Your task to perform on an android device: turn on location history Image 0: 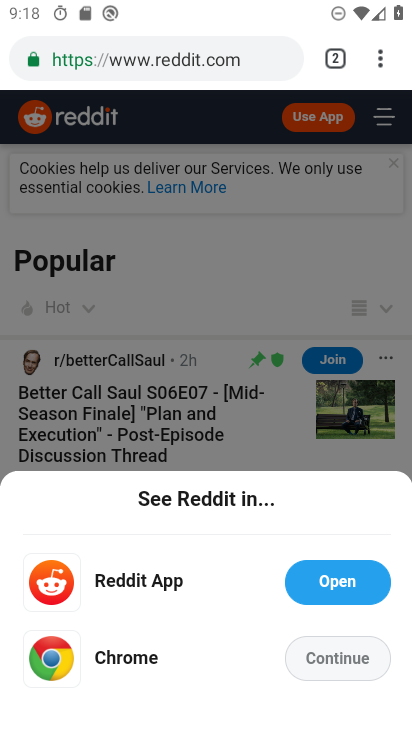
Step 0: press home button
Your task to perform on an android device: turn on location history Image 1: 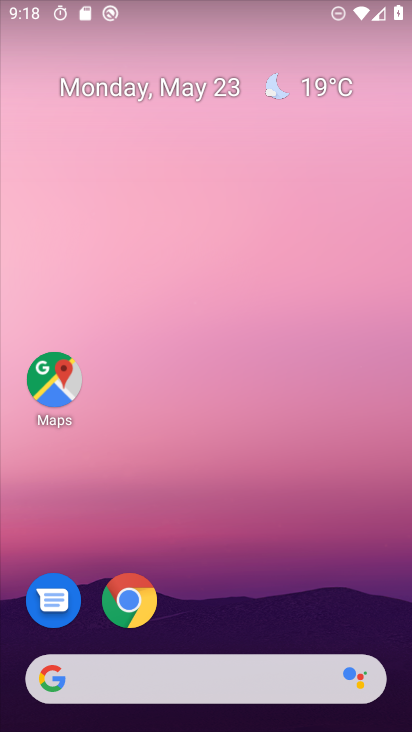
Step 1: drag from (1, 717) to (315, 78)
Your task to perform on an android device: turn on location history Image 2: 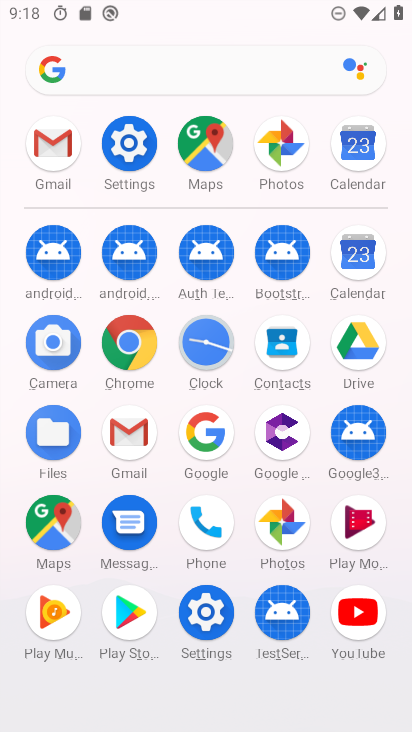
Step 2: click (127, 147)
Your task to perform on an android device: turn on location history Image 3: 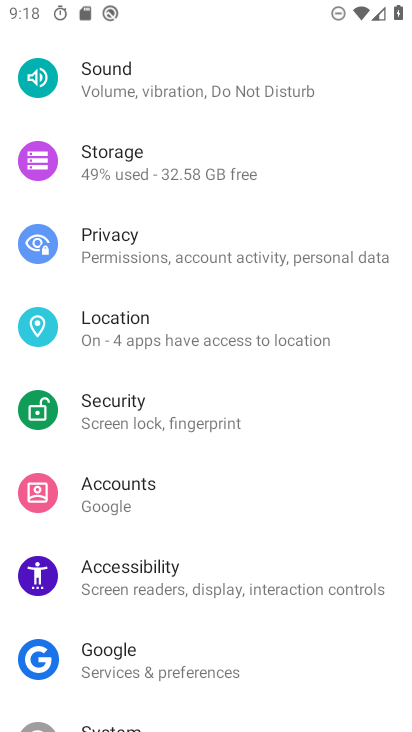
Step 3: drag from (141, 78) to (106, 531)
Your task to perform on an android device: turn on location history Image 4: 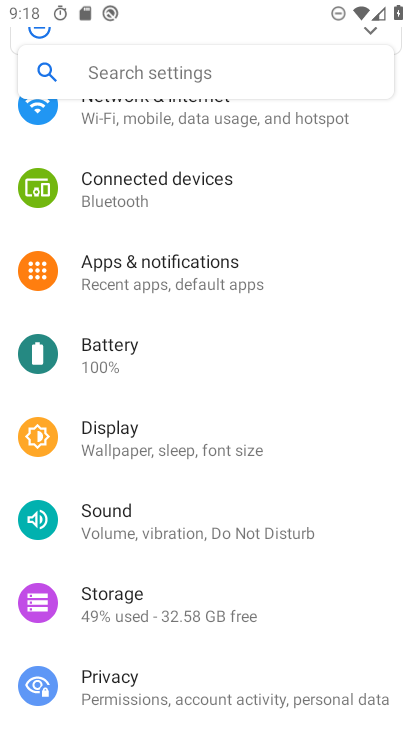
Step 4: drag from (61, 631) to (250, 63)
Your task to perform on an android device: turn on location history Image 5: 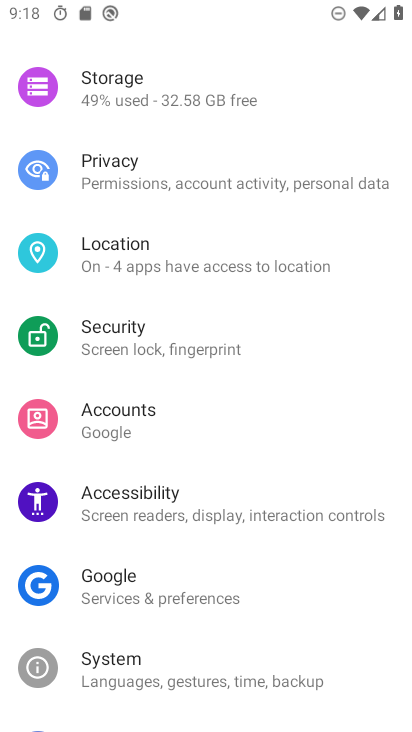
Step 5: click (110, 244)
Your task to perform on an android device: turn on location history Image 6: 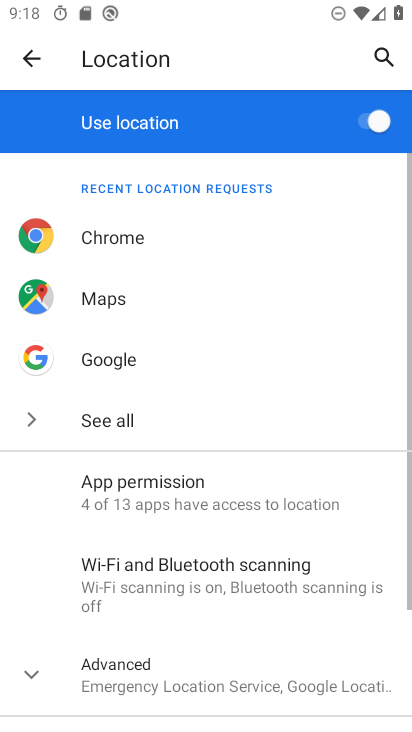
Step 6: click (174, 686)
Your task to perform on an android device: turn on location history Image 7: 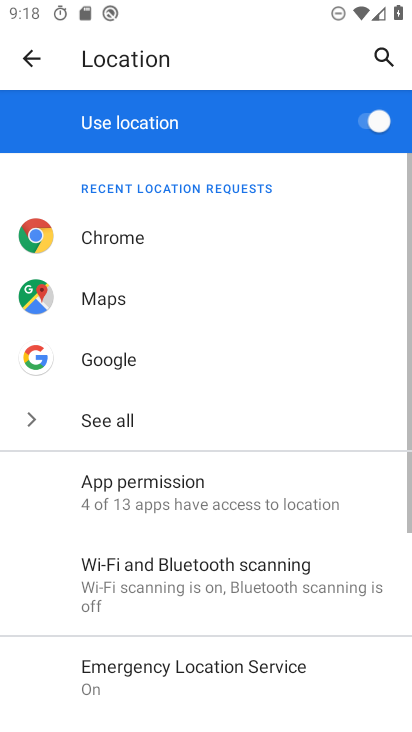
Step 7: drag from (10, 434) to (236, 67)
Your task to perform on an android device: turn on location history Image 8: 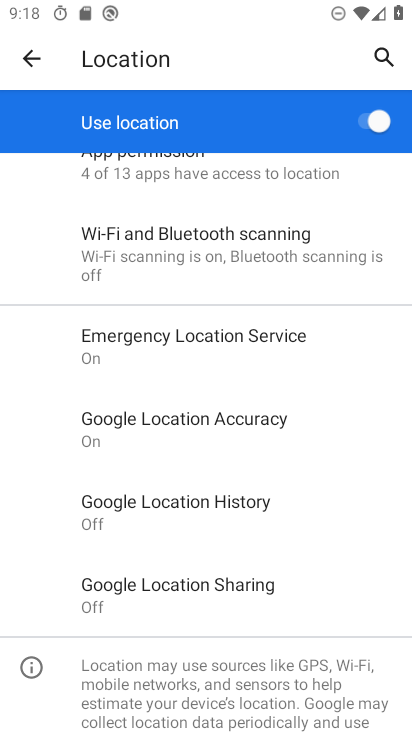
Step 8: click (193, 489)
Your task to perform on an android device: turn on location history Image 9: 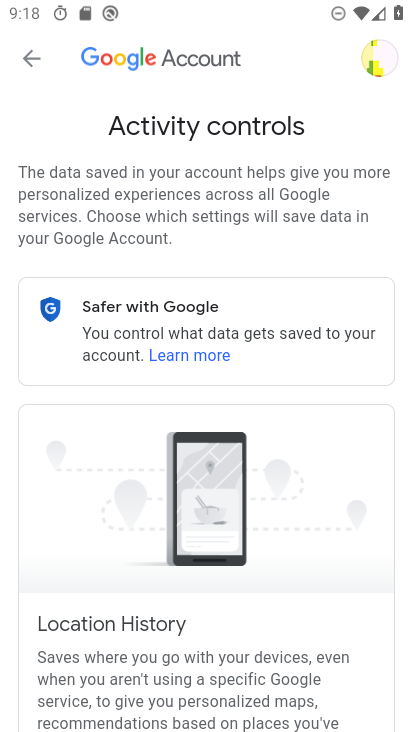
Step 9: drag from (14, 570) to (299, 48)
Your task to perform on an android device: turn on location history Image 10: 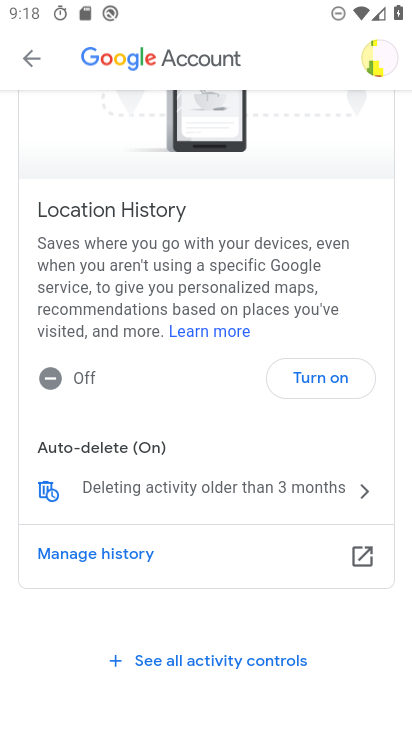
Step 10: click (300, 380)
Your task to perform on an android device: turn on location history Image 11: 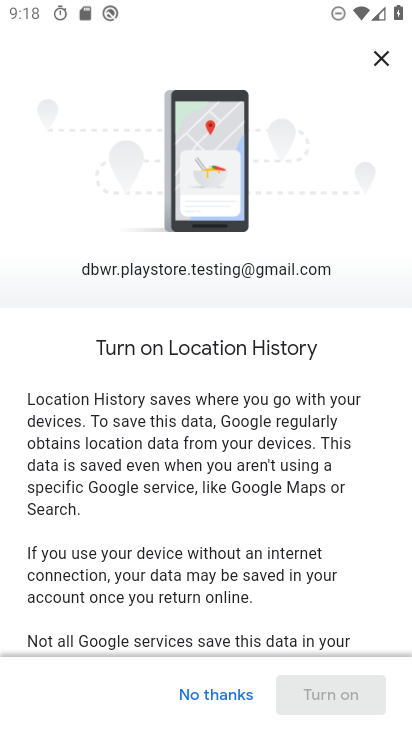
Step 11: drag from (41, 661) to (354, 47)
Your task to perform on an android device: turn on location history Image 12: 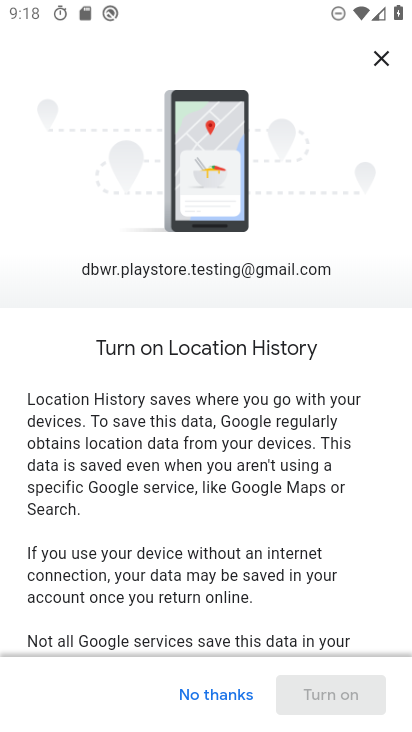
Step 12: drag from (42, 487) to (290, 43)
Your task to perform on an android device: turn on location history Image 13: 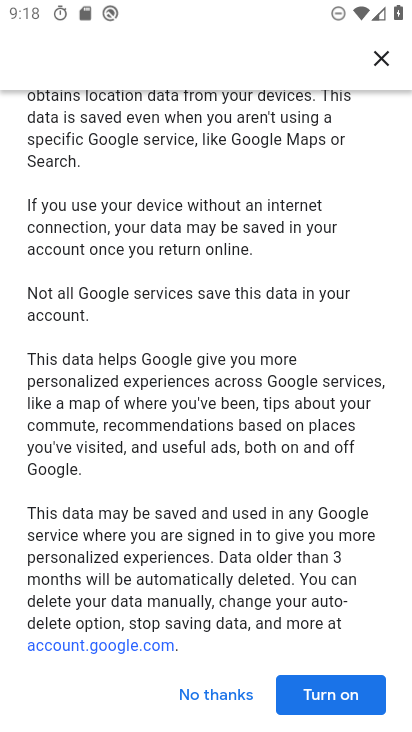
Step 13: click (346, 691)
Your task to perform on an android device: turn on location history Image 14: 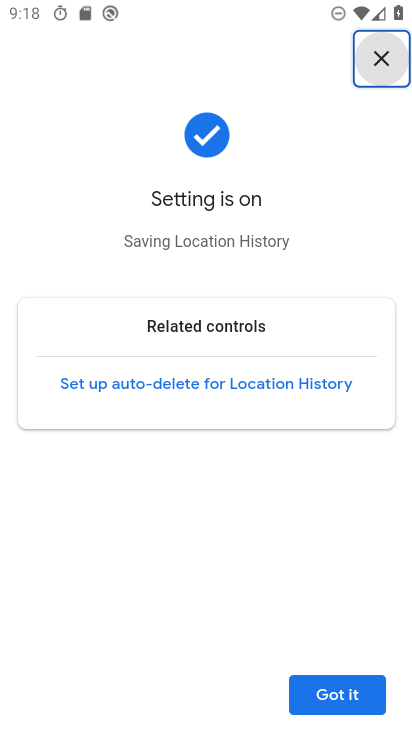
Step 14: click (352, 694)
Your task to perform on an android device: turn on location history Image 15: 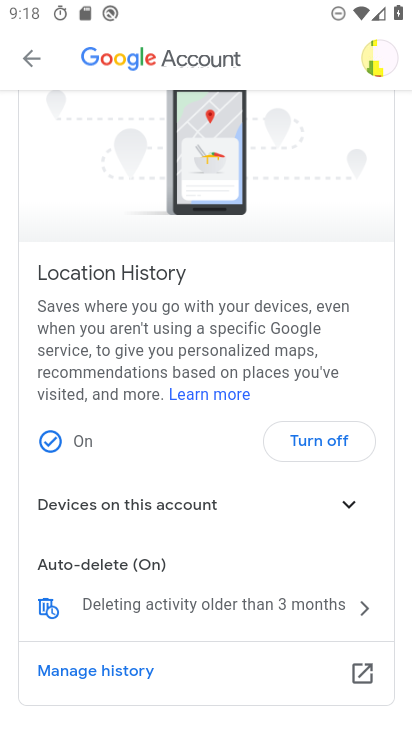
Step 15: task complete